Your task to perform on an android device: add a label to a message in the gmail app Image 0: 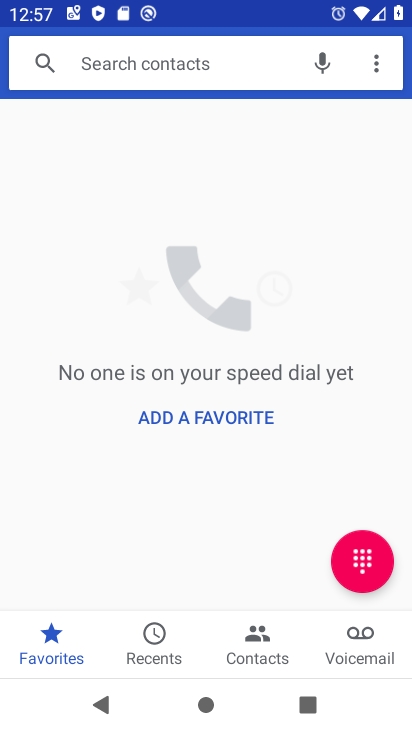
Step 0: press home button
Your task to perform on an android device: add a label to a message in the gmail app Image 1: 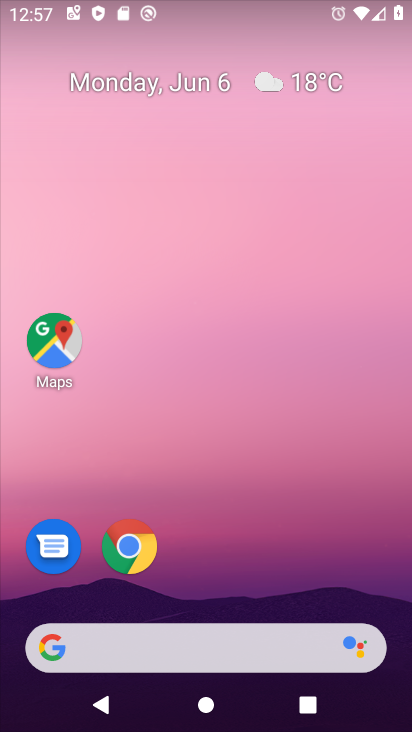
Step 1: drag from (252, 470) to (277, 45)
Your task to perform on an android device: add a label to a message in the gmail app Image 2: 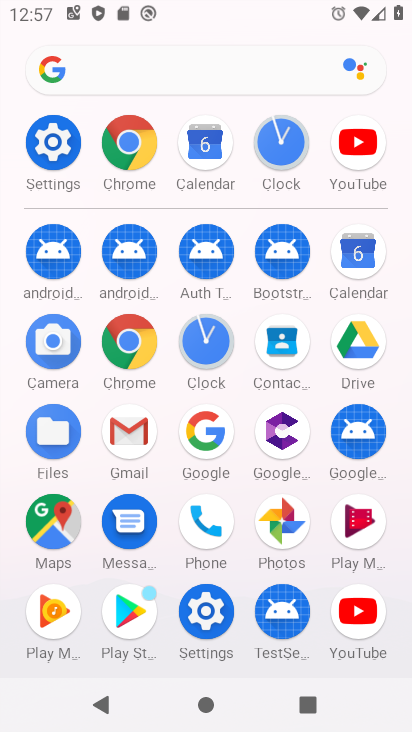
Step 2: click (118, 428)
Your task to perform on an android device: add a label to a message in the gmail app Image 3: 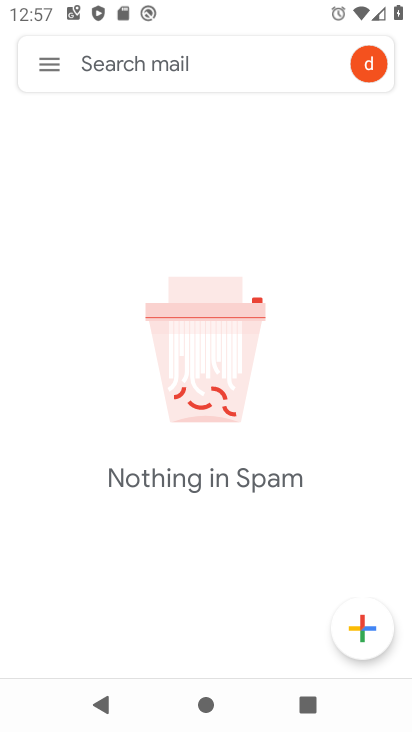
Step 3: click (379, 53)
Your task to perform on an android device: add a label to a message in the gmail app Image 4: 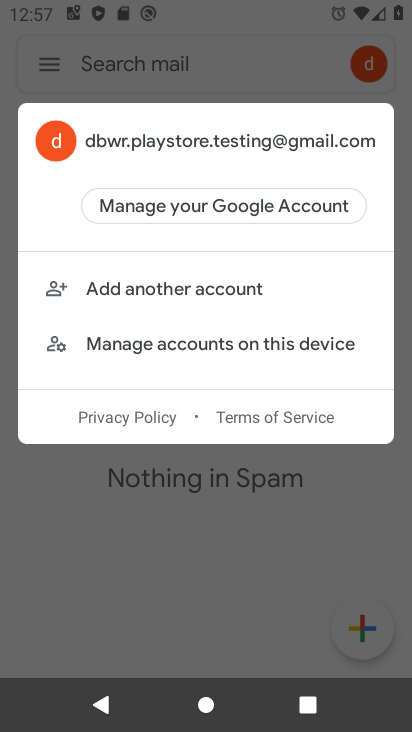
Step 4: click (39, 68)
Your task to perform on an android device: add a label to a message in the gmail app Image 5: 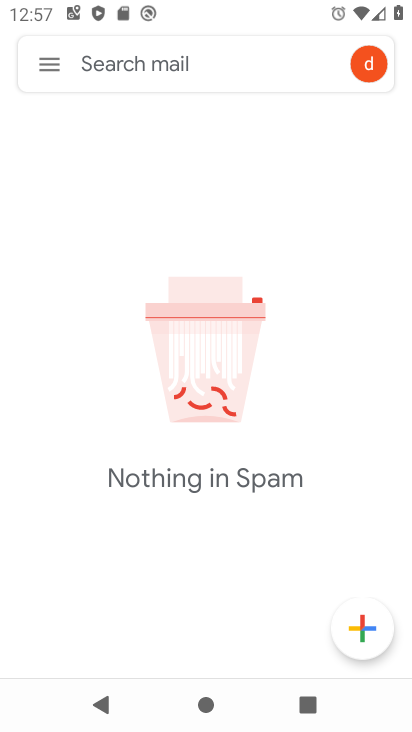
Step 5: click (49, 65)
Your task to perform on an android device: add a label to a message in the gmail app Image 6: 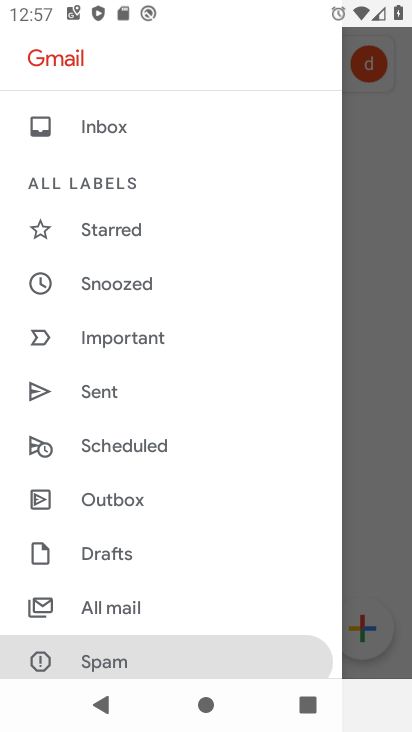
Step 6: drag from (218, 582) to (294, 241)
Your task to perform on an android device: add a label to a message in the gmail app Image 7: 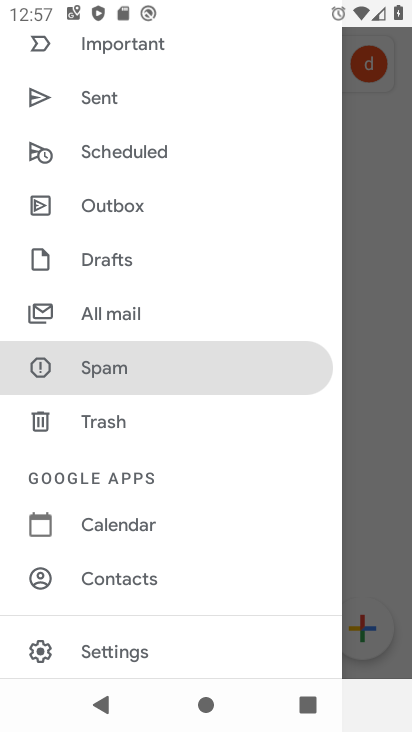
Step 7: click (127, 640)
Your task to perform on an android device: add a label to a message in the gmail app Image 8: 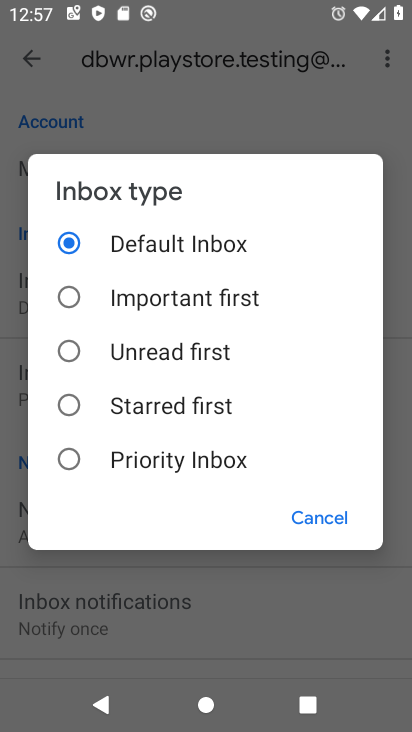
Step 8: task complete